Your task to perform on an android device: What's on my calendar tomorrow? Image 0: 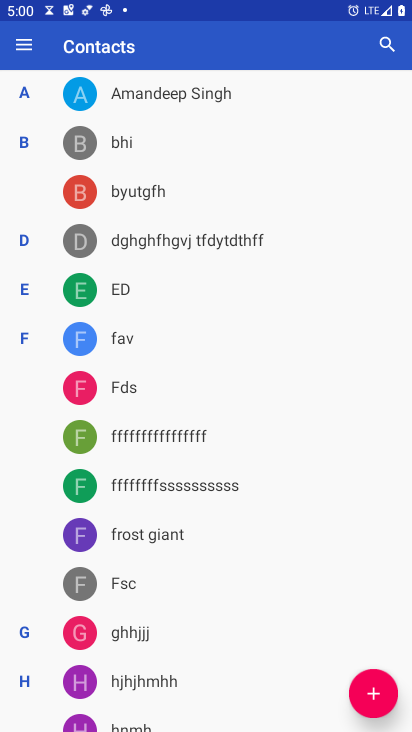
Step 0: press home button
Your task to perform on an android device: What's on my calendar tomorrow? Image 1: 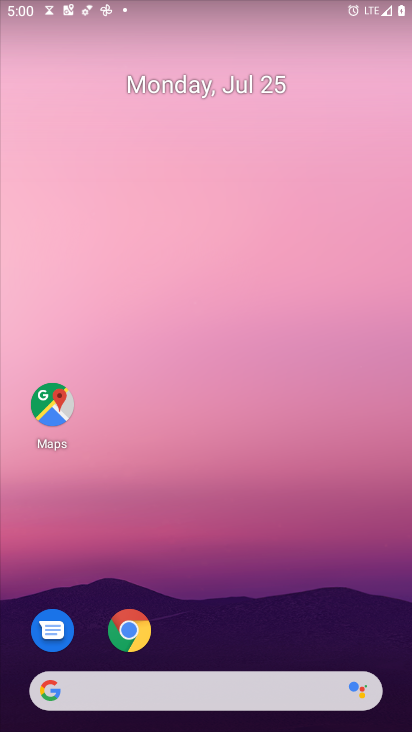
Step 1: drag from (170, 695) to (240, 30)
Your task to perform on an android device: What's on my calendar tomorrow? Image 2: 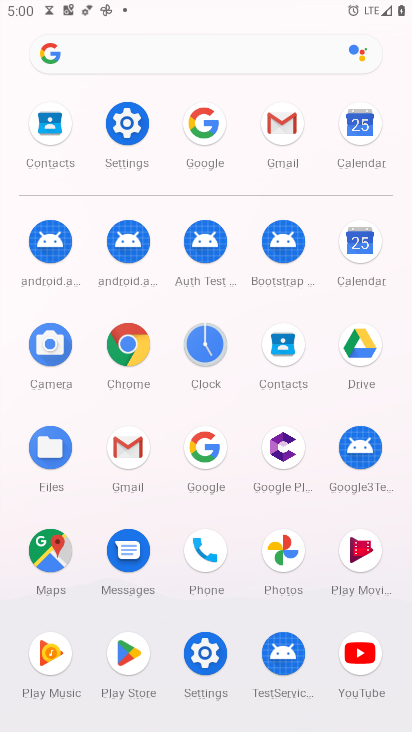
Step 2: click (361, 242)
Your task to perform on an android device: What's on my calendar tomorrow? Image 3: 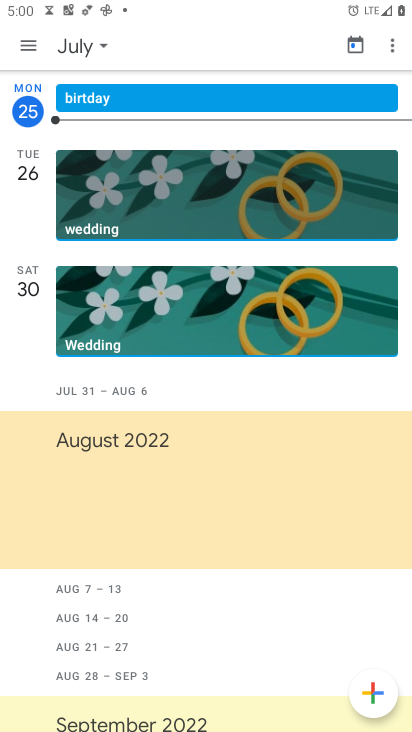
Step 3: click (357, 45)
Your task to perform on an android device: What's on my calendar tomorrow? Image 4: 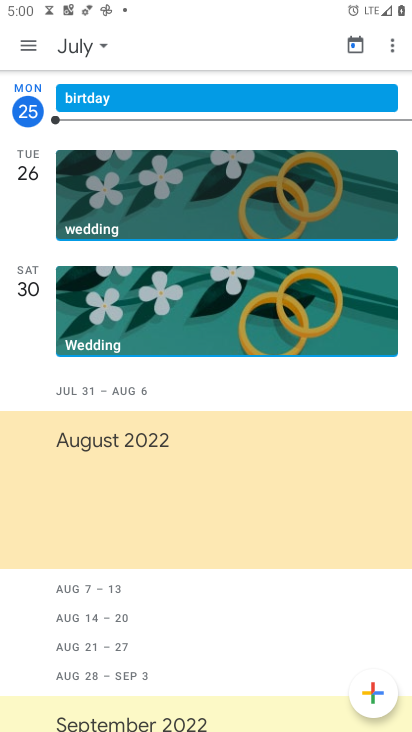
Step 4: click (102, 45)
Your task to perform on an android device: What's on my calendar tomorrow? Image 5: 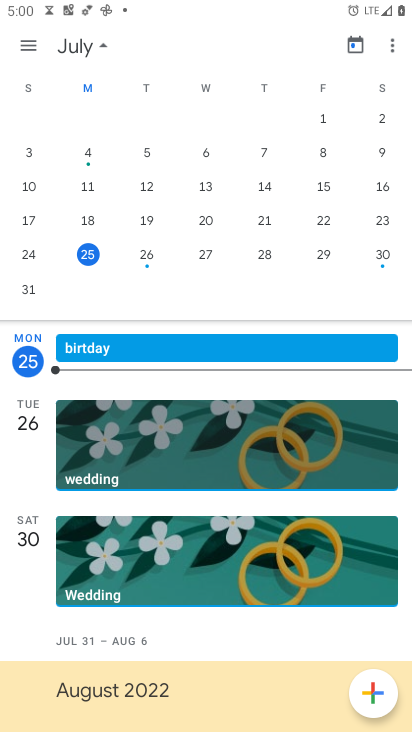
Step 5: click (148, 254)
Your task to perform on an android device: What's on my calendar tomorrow? Image 6: 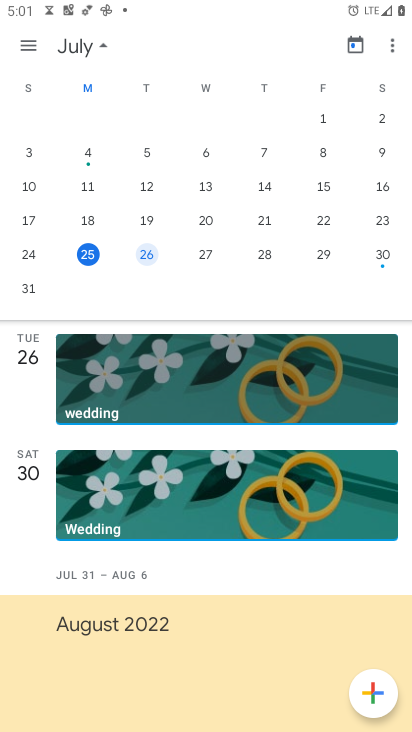
Step 6: task complete